Your task to perform on an android device: Is it going to rain tomorrow? Image 0: 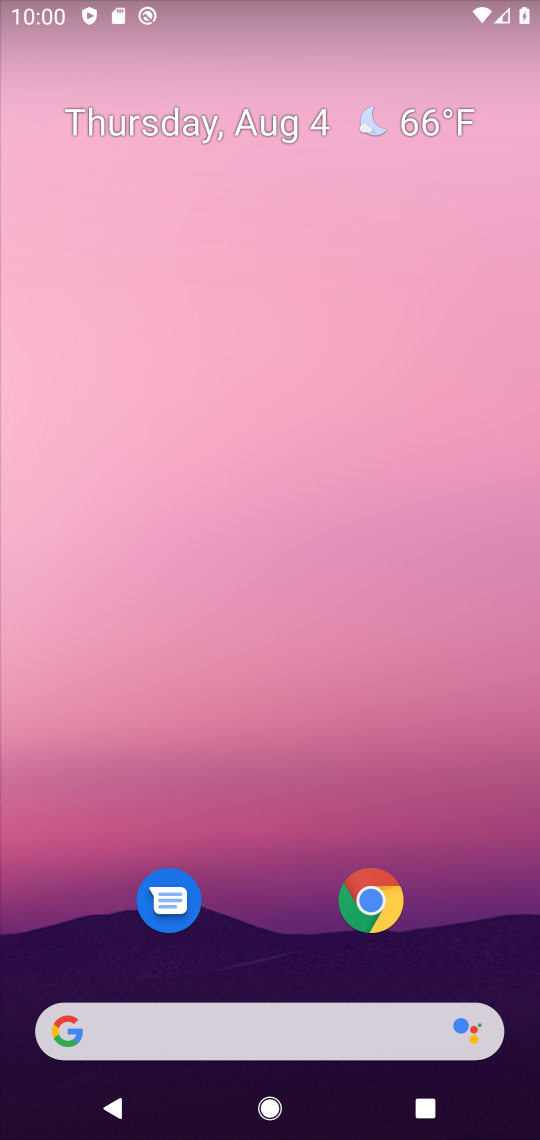
Step 0: drag from (459, 954) to (345, 293)
Your task to perform on an android device: Is it going to rain tomorrow? Image 1: 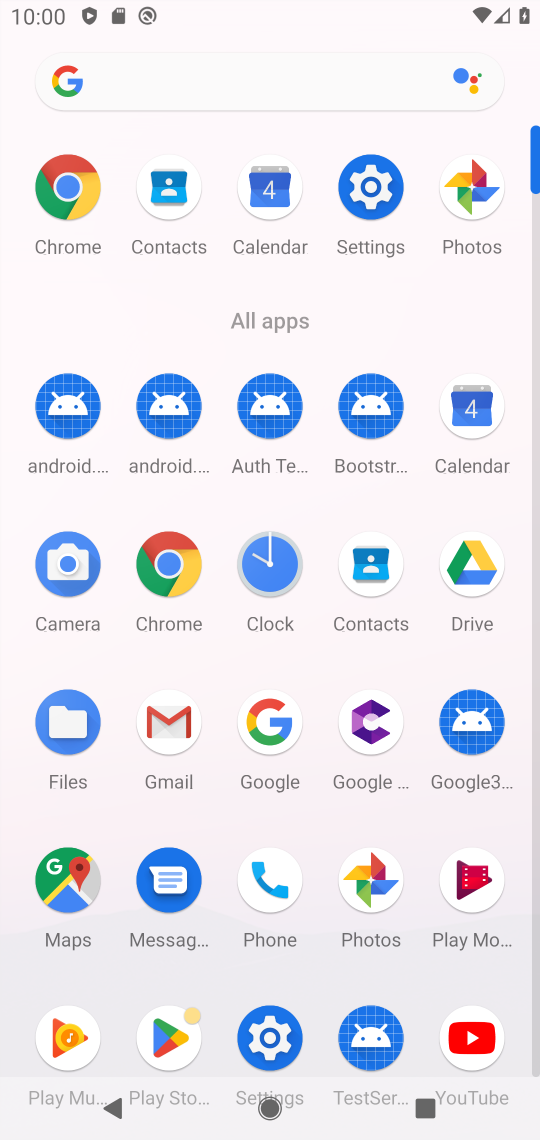
Step 1: click (67, 214)
Your task to perform on an android device: Is it going to rain tomorrow? Image 2: 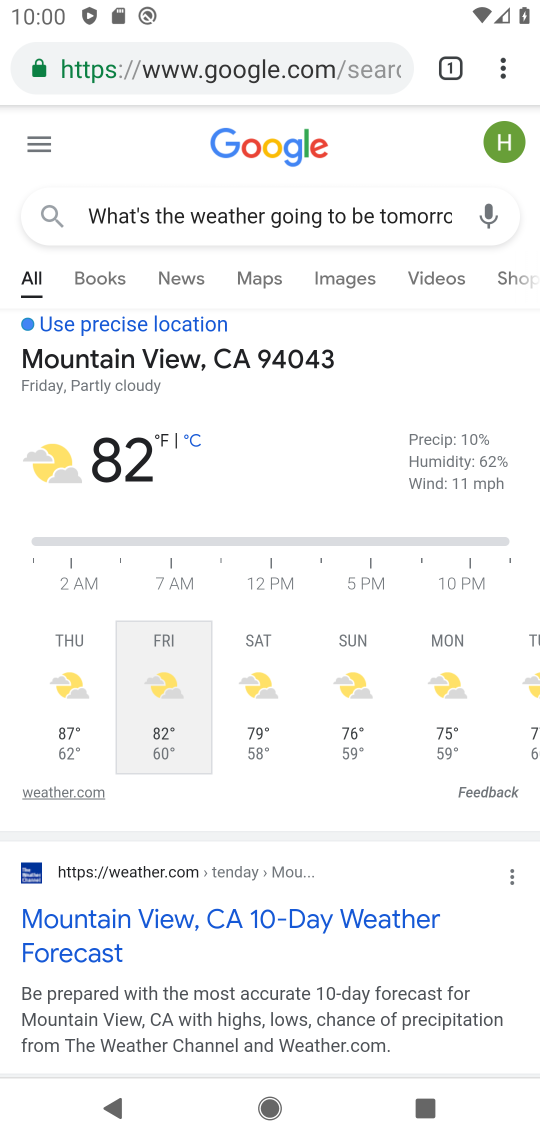
Step 2: click (275, 68)
Your task to perform on an android device: Is it going to rain tomorrow? Image 3: 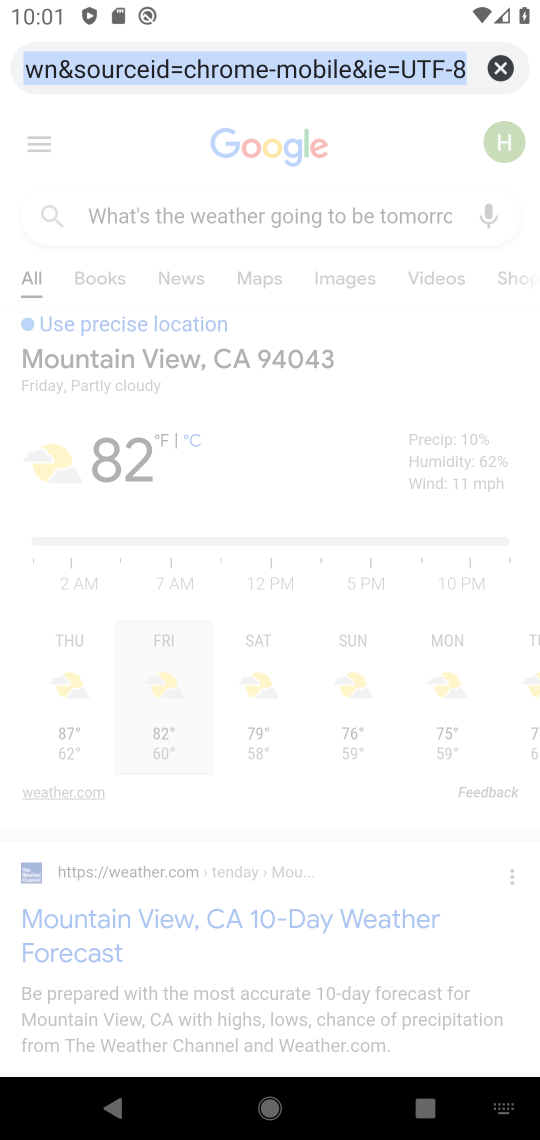
Step 3: type "Is it going to rain tomorrow?"
Your task to perform on an android device: Is it going to rain tomorrow? Image 4: 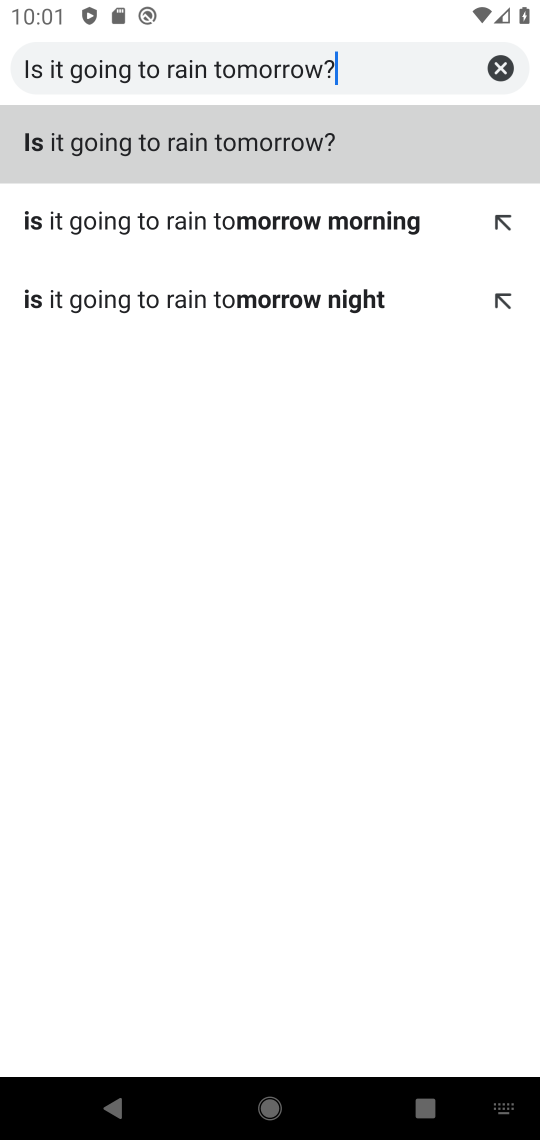
Step 4: click (163, 128)
Your task to perform on an android device: Is it going to rain tomorrow? Image 5: 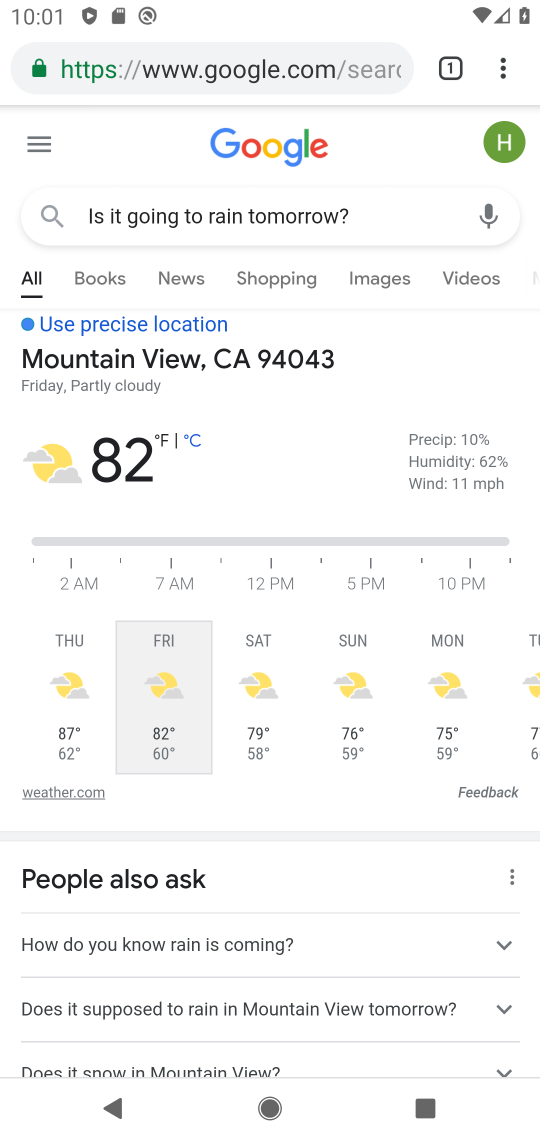
Step 5: task complete